Your task to perform on an android device: turn off location Image 0: 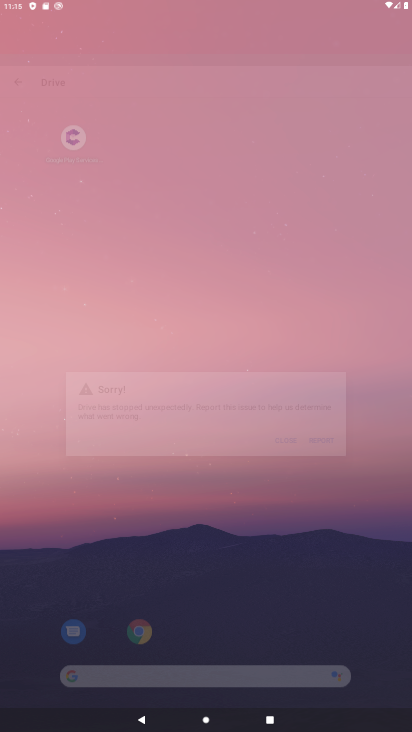
Step 0: click (240, 16)
Your task to perform on an android device: turn off location Image 1: 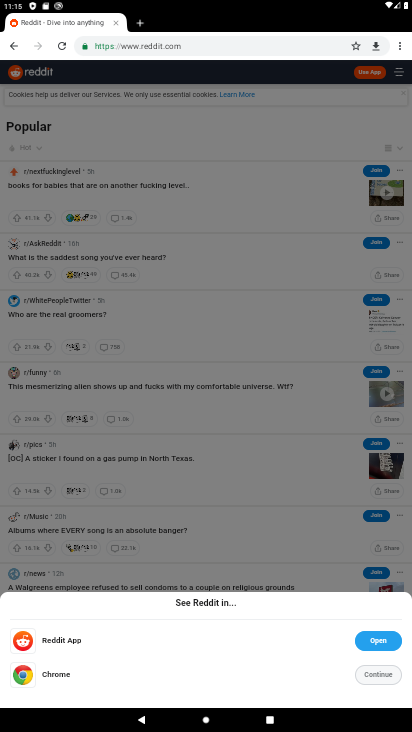
Step 1: press home button
Your task to perform on an android device: turn off location Image 2: 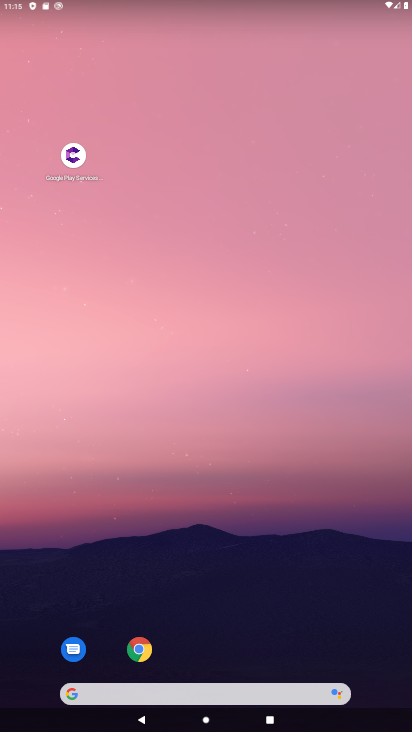
Step 2: drag from (164, 679) to (269, 2)
Your task to perform on an android device: turn off location Image 3: 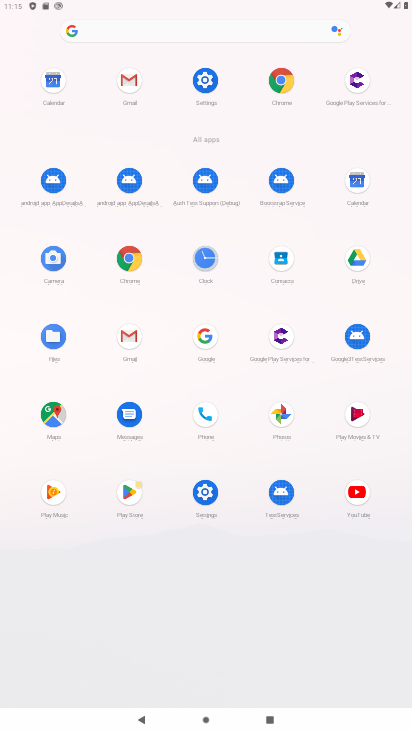
Step 3: click (212, 78)
Your task to perform on an android device: turn off location Image 4: 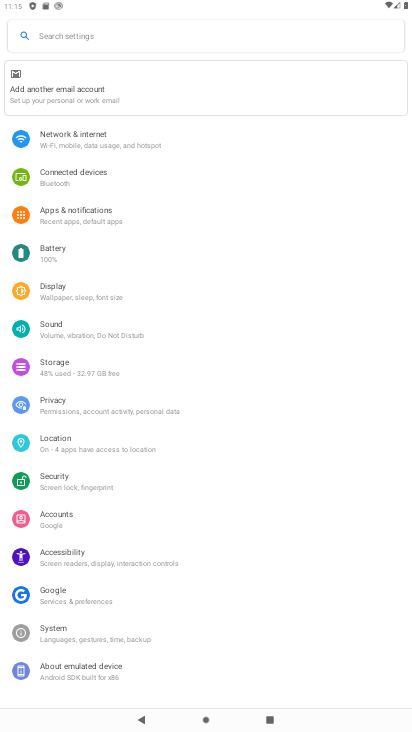
Step 4: click (90, 445)
Your task to perform on an android device: turn off location Image 5: 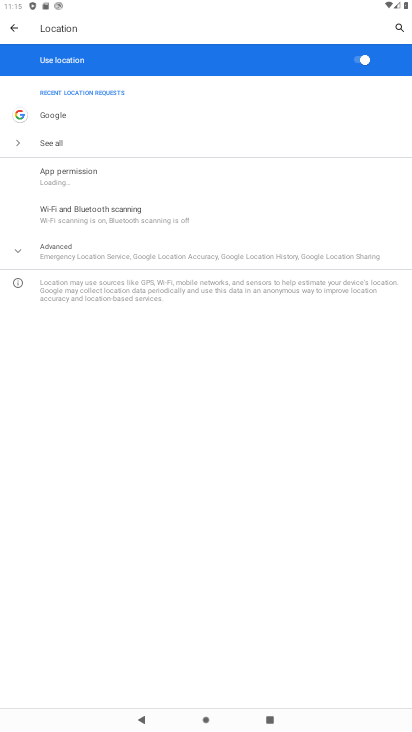
Step 5: click (360, 66)
Your task to perform on an android device: turn off location Image 6: 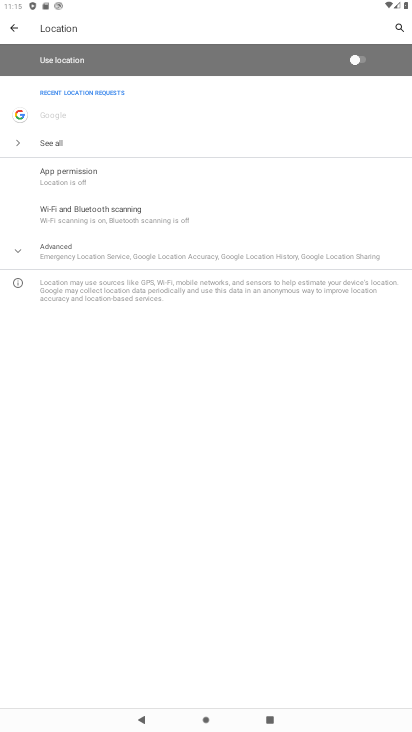
Step 6: task complete